Your task to perform on an android device: open app "Instagram" (install if not already installed), go to login, and select forgot password Image 0: 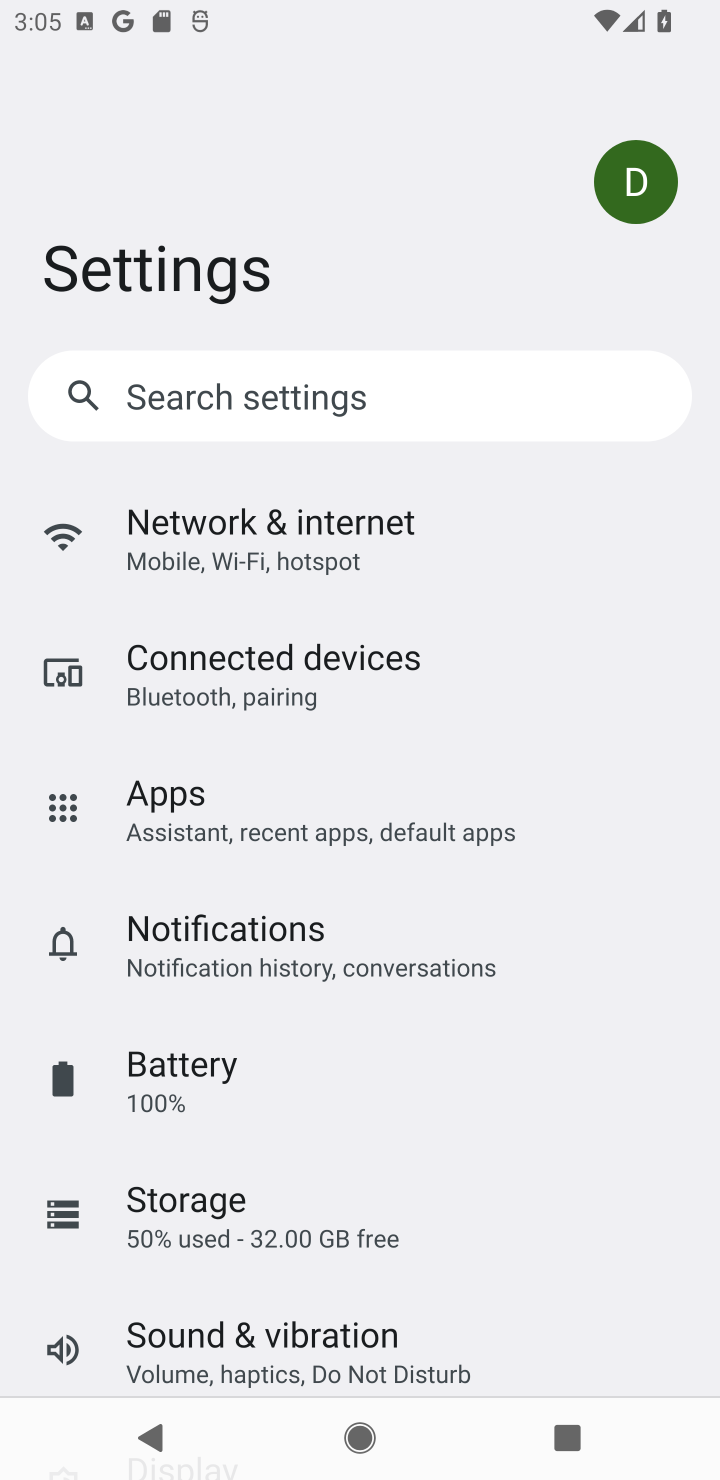
Step 0: press home button
Your task to perform on an android device: open app "Instagram" (install if not already installed), go to login, and select forgot password Image 1: 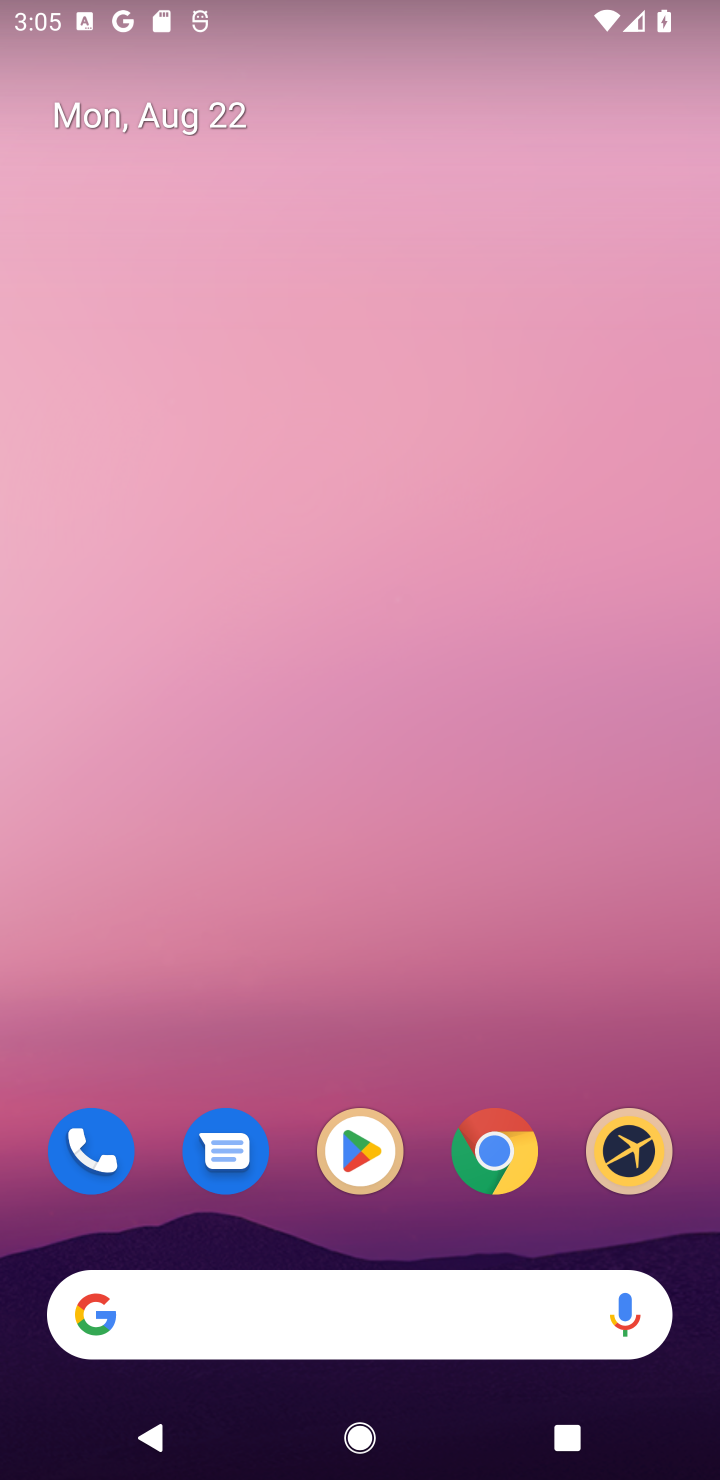
Step 1: click (363, 1134)
Your task to perform on an android device: open app "Instagram" (install if not already installed), go to login, and select forgot password Image 2: 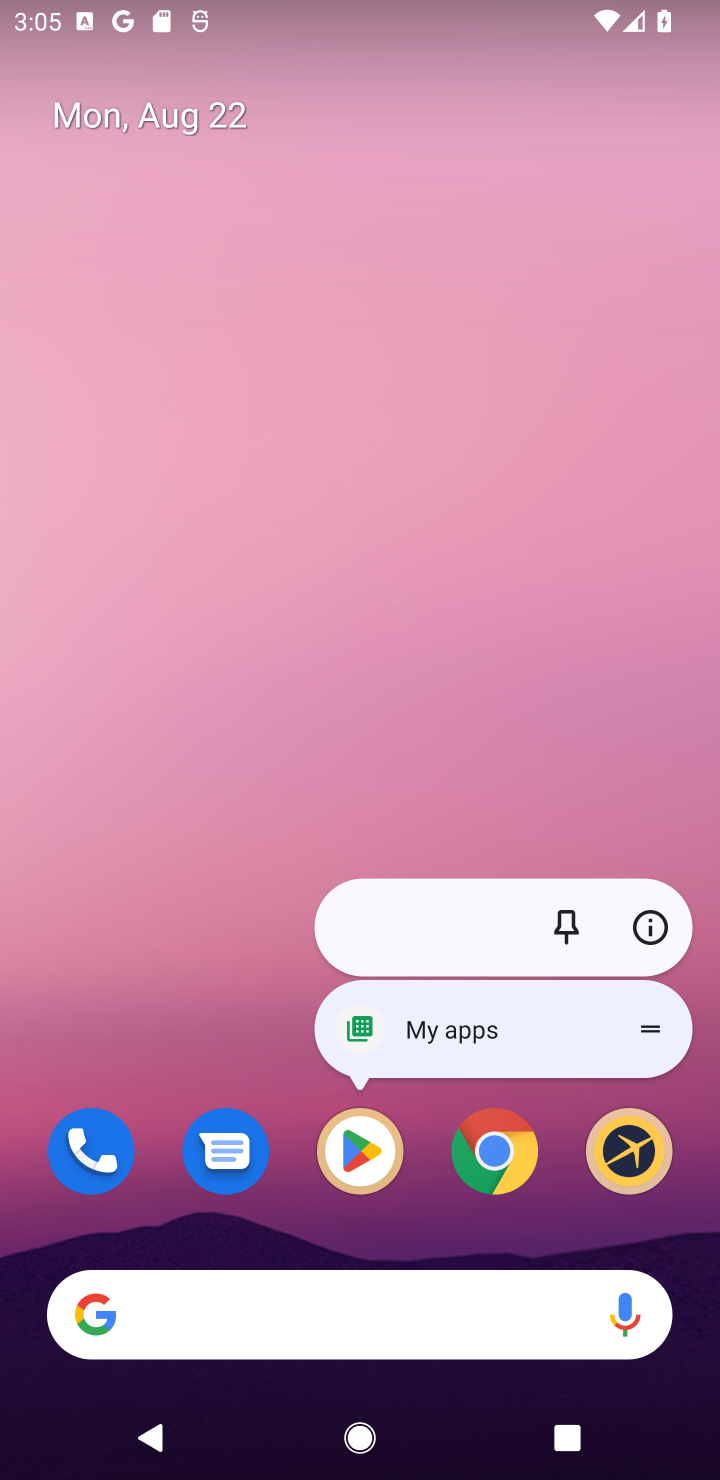
Step 2: click (363, 1136)
Your task to perform on an android device: open app "Instagram" (install if not already installed), go to login, and select forgot password Image 3: 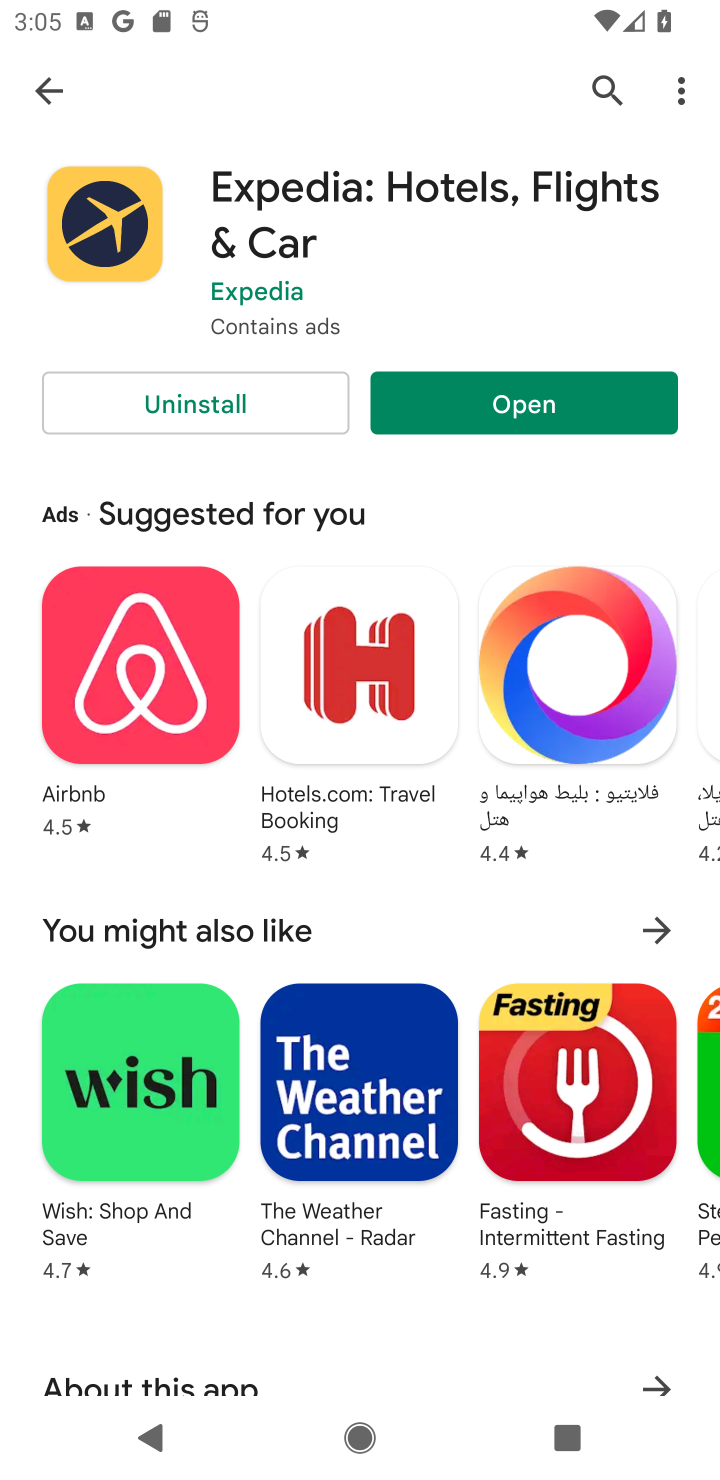
Step 3: click (609, 75)
Your task to perform on an android device: open app "Instagram" (install if not already installed), go to login, and select forgot password Image 4: 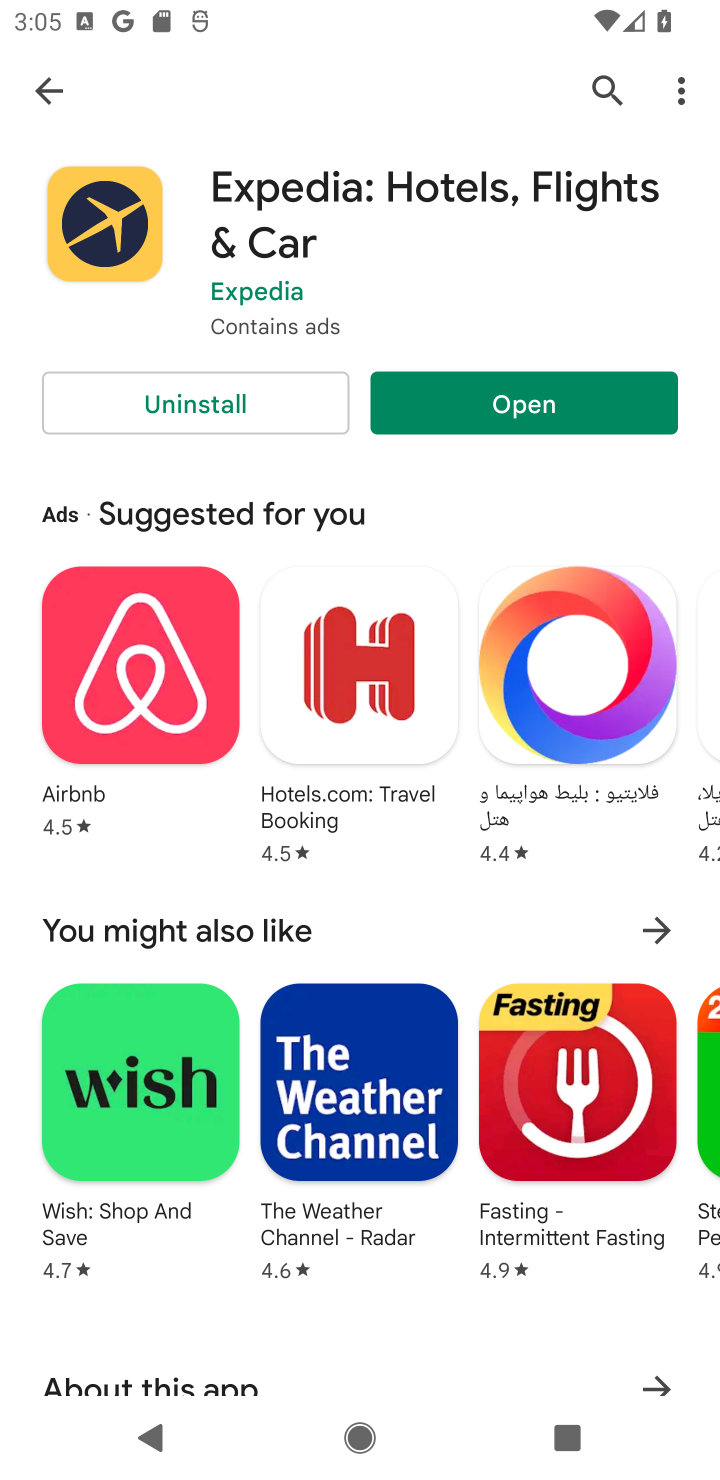
Step 4: click (601, 90)
Your task to perform on an android device: open app "Instagram" (install if not already installed), go to login, and select forgot password Image 5: 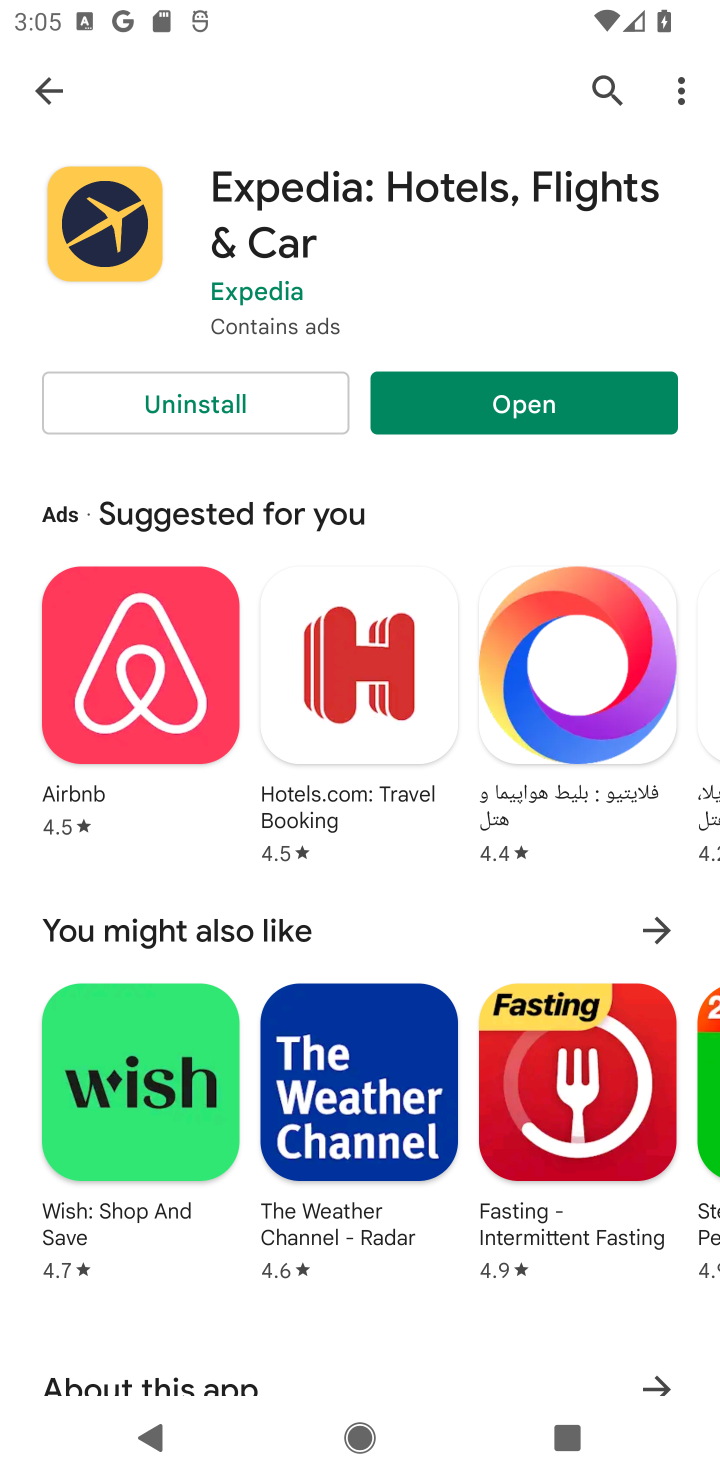
Step 5: click (601, 88)
Your task to perform on an android device: open app "Instagram" (install if not already installed), go to login, and select forgot password Image 6: 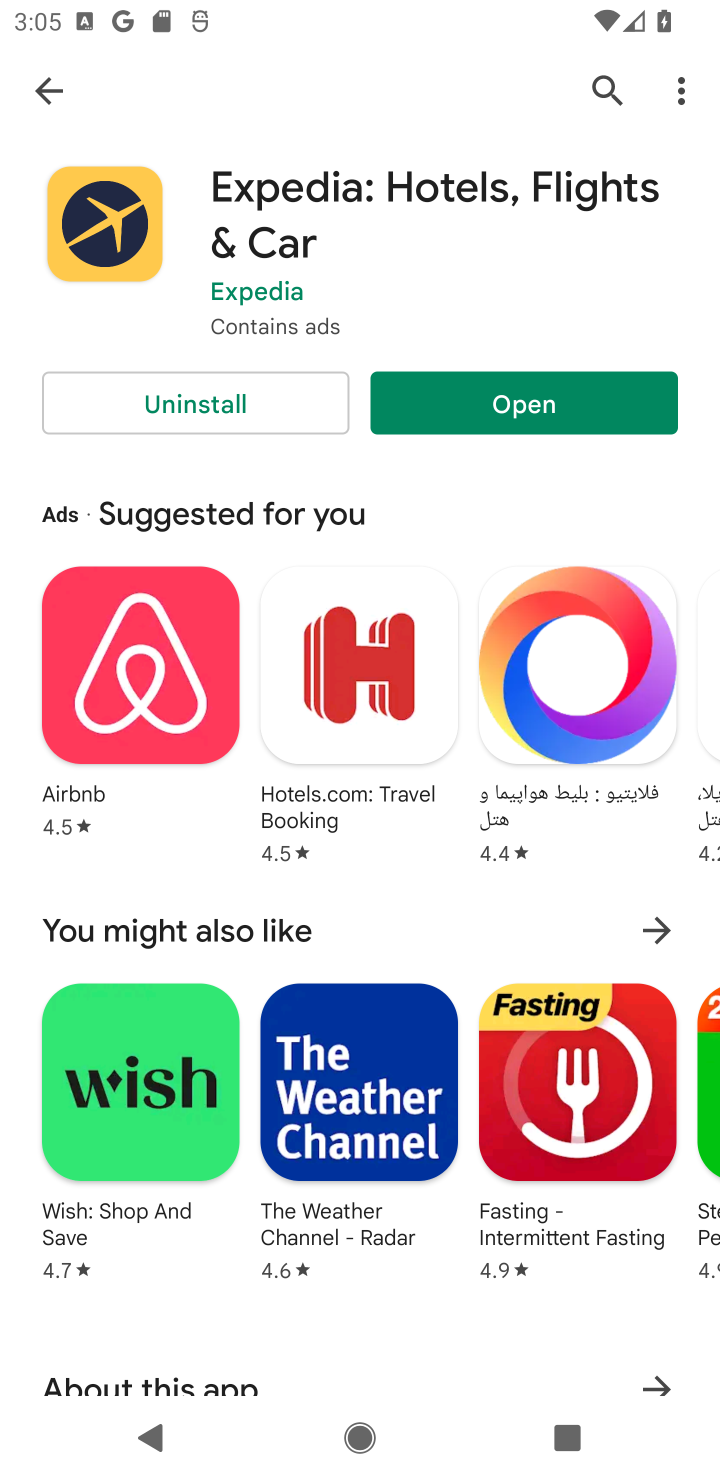
Step 6: click (604, 80)
Your task to perform on an android device: open app "Instagram" (install if not already installed), go to login, and select forgot password Image 7: 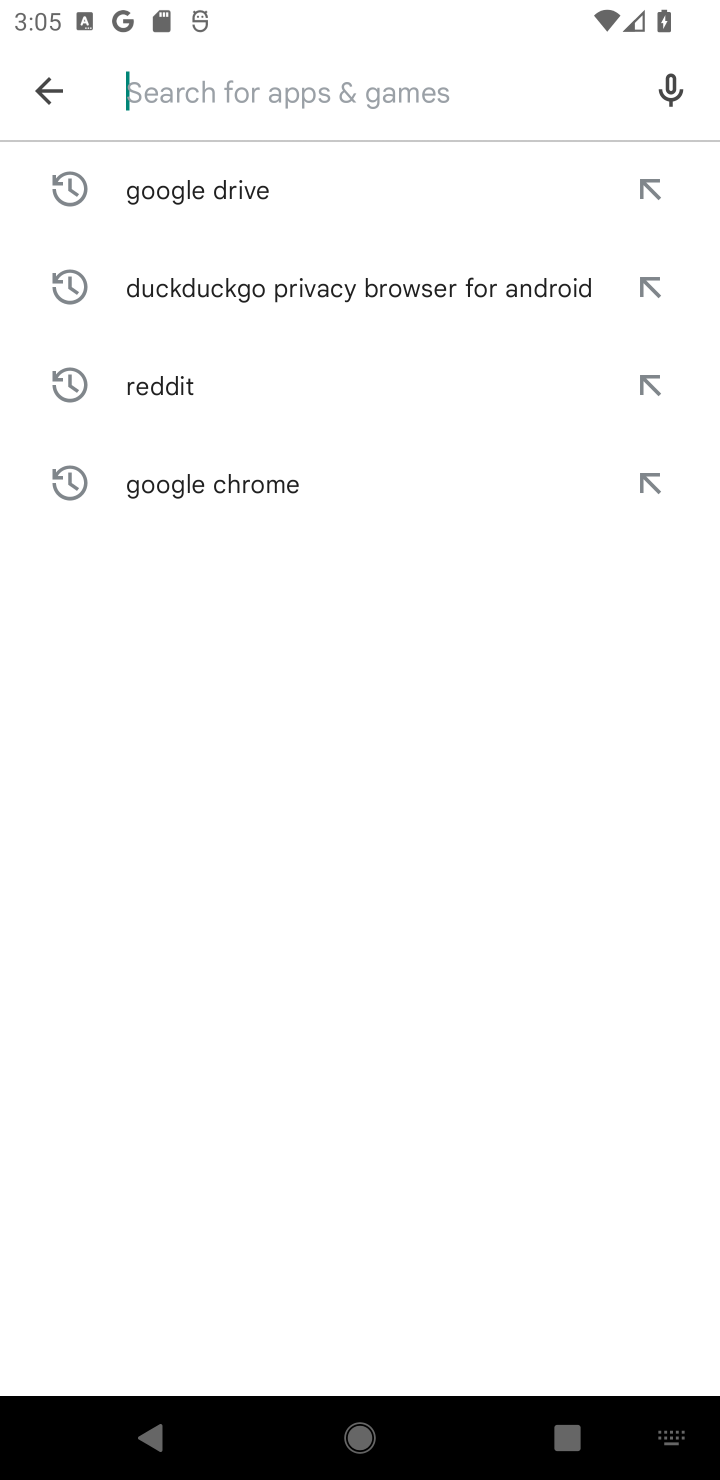
Step 7: type "Instagram"
Your task to perform on an android device: open app "Instagram" (install if not already installed), go to login, and select forgot password Image 8: 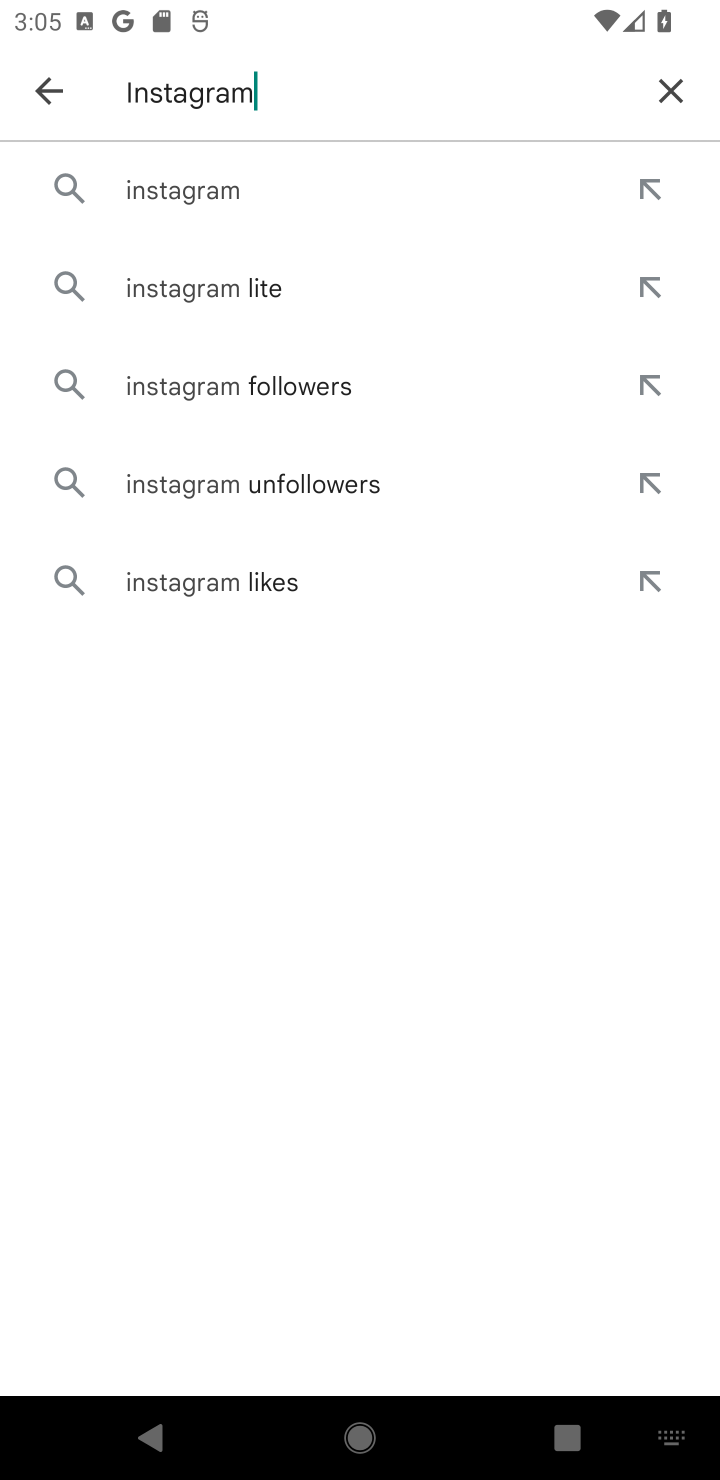
Step 8: click (178, 190)
Your task to perform on an android device: open app "Instagram" (install if not already installed), go to login, and select forgot password Image 9: 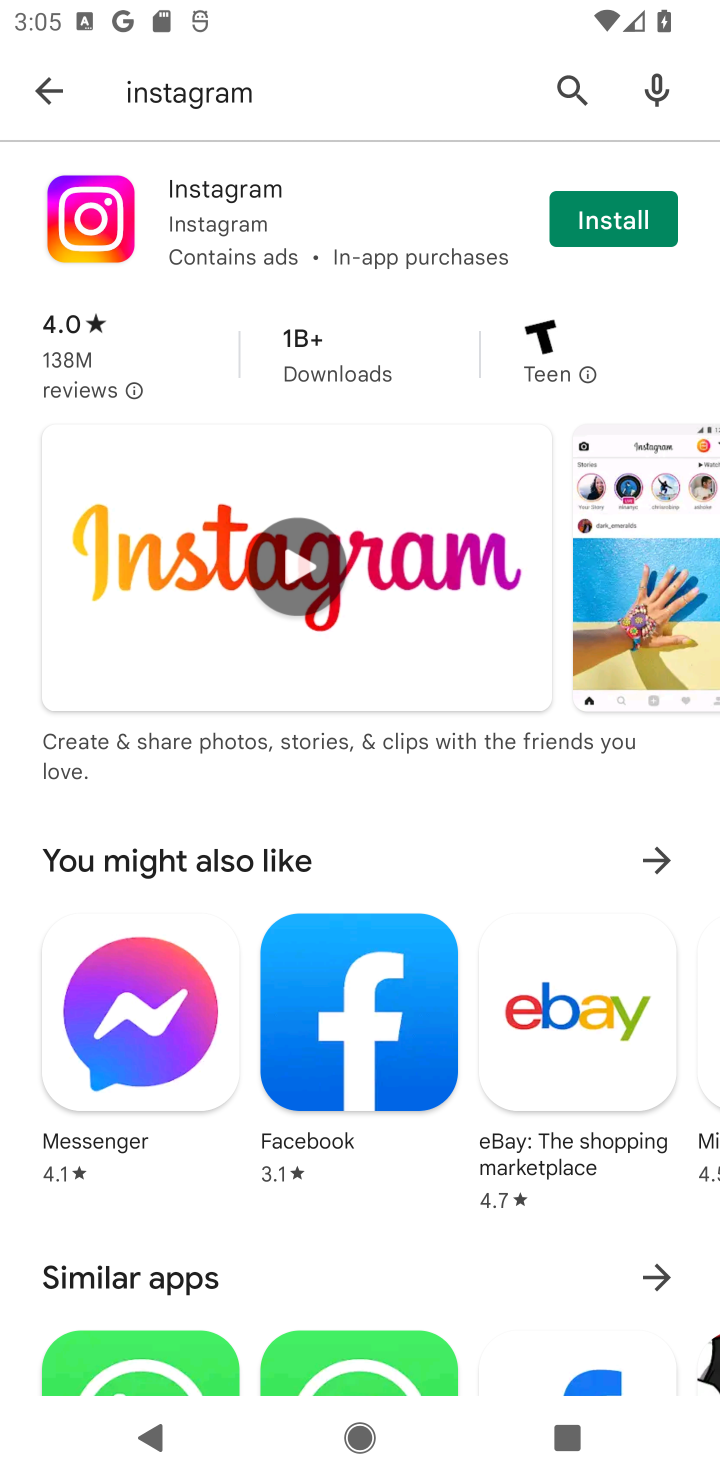
Step 9: click (625, 227)
Your task to perform on an android device: open app "Instagram" (install if not already installed), go to login, and select forgot password Image 10: 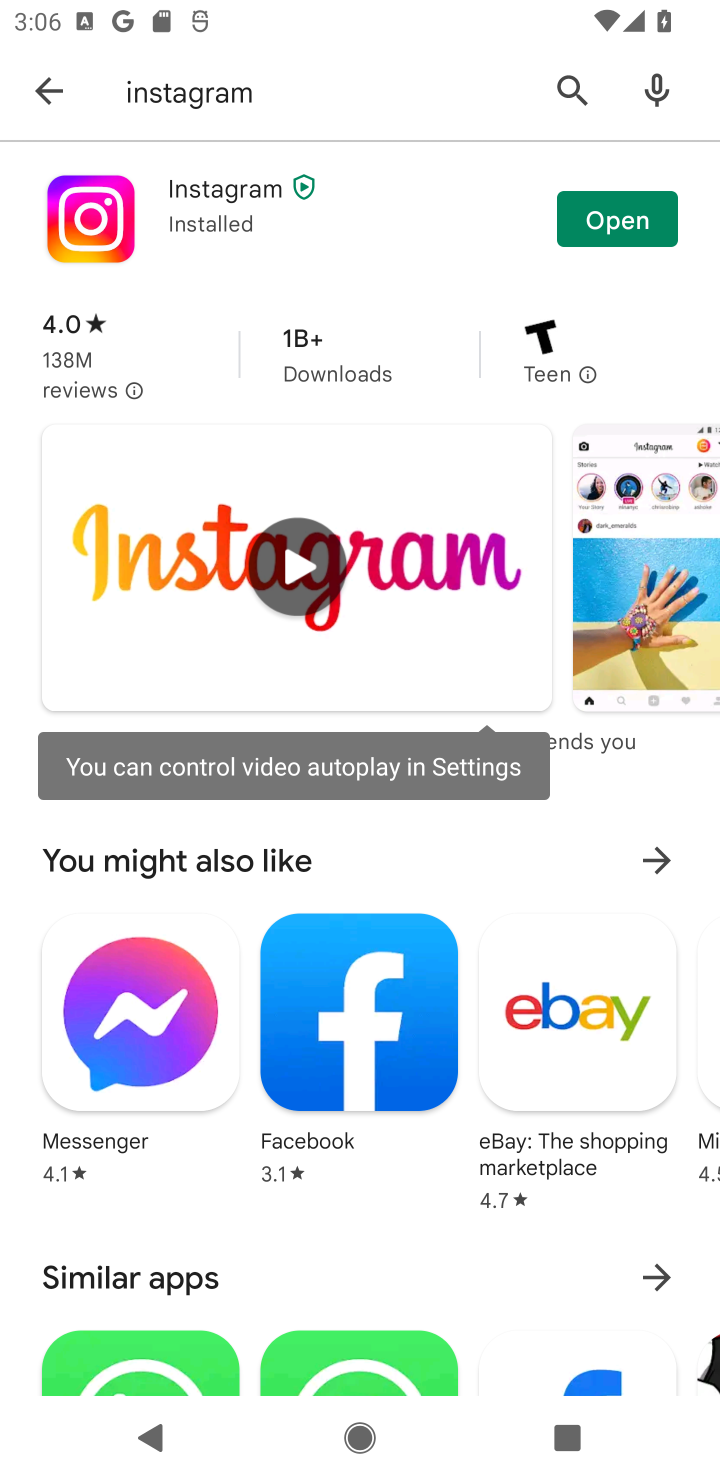
Step 10: click (641, 217)
Your task to perform on an android device: open app "Instagram" (install if not already installed), go to login, and select forgot password Image 11: 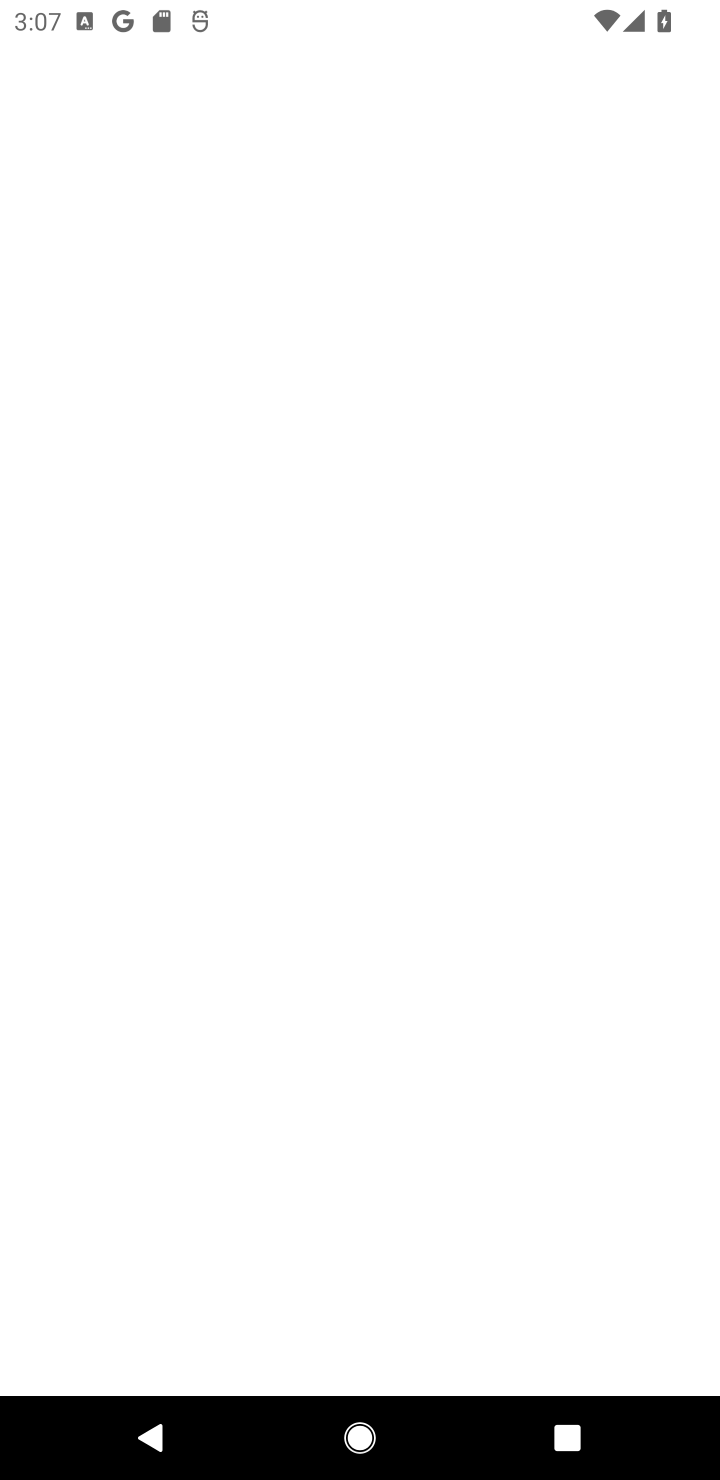
Step 11: task complete